Your task to perform on an android device: What's on my calendar today? Image 0: 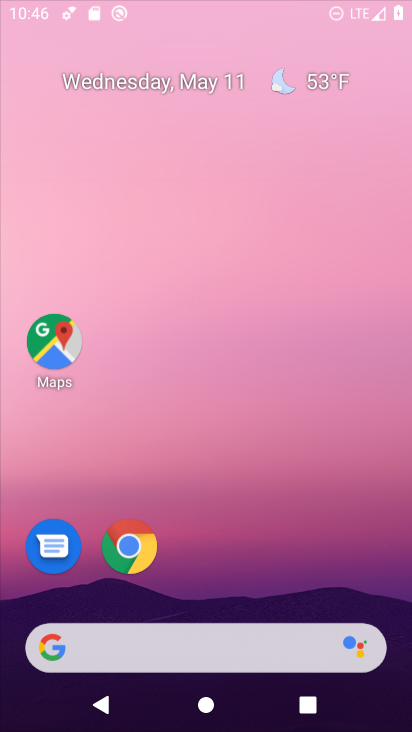
Step 0: click (265, 1)
Your task to perform on an android device: What's on my calendar today? Image 1: 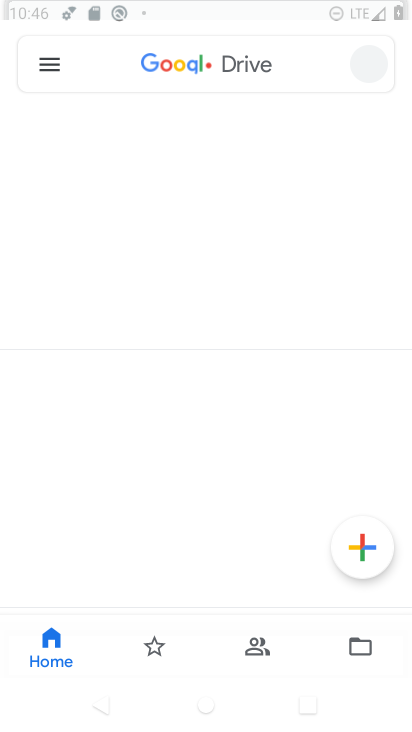
Step 1: press home button
Your task to perform on an android device: What's on my calendar today? Image 2: 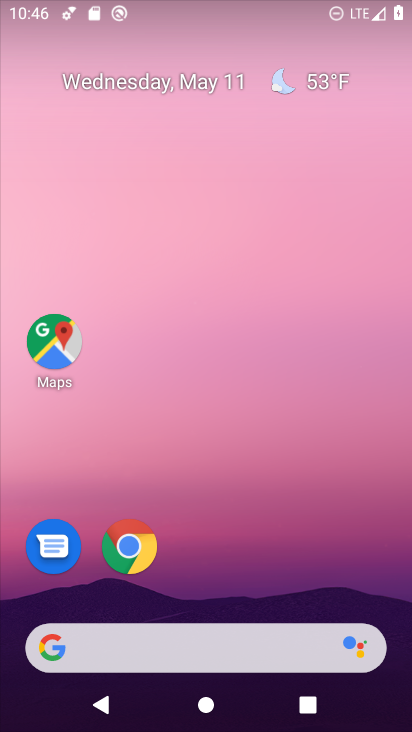
Step 2: drag from (397, 627) to (283, 36)
Your task to perform on an android device: What's on my calendar today? Image 3: 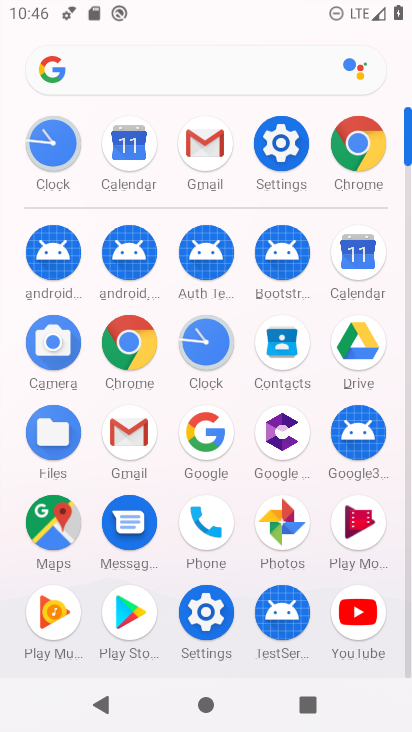
Step 3: click (368, 265)
Your task to perform on an android device: What's on my calendar today? Image 4: 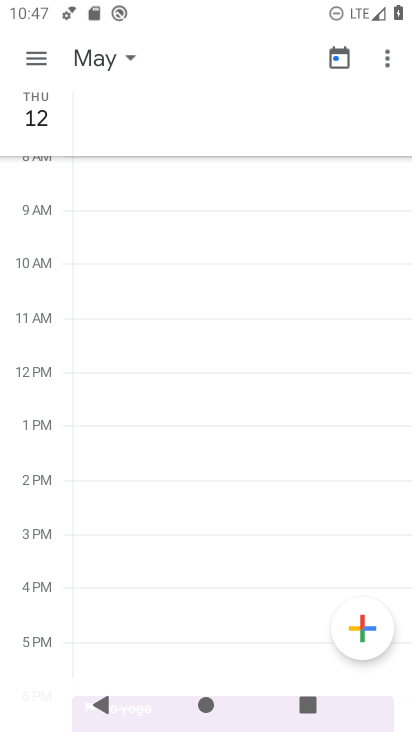
Step 4: click (74, 54)
Your task to perform on an android device: What's on my calendar today? Image 5: 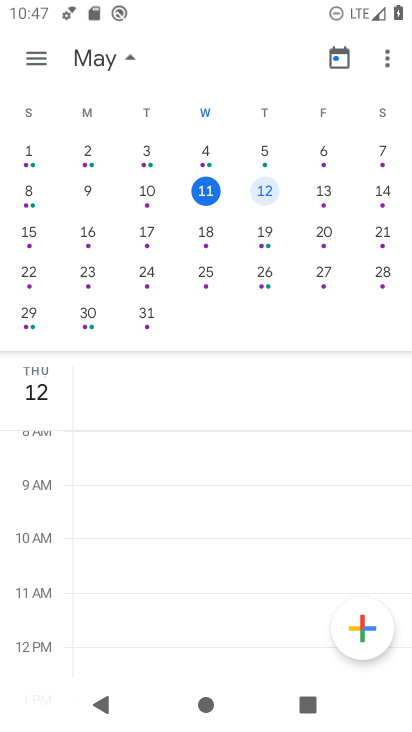
Step 5: click (46, 63)
Your task to perform on an android device: What's on my calendar today? Image 6: 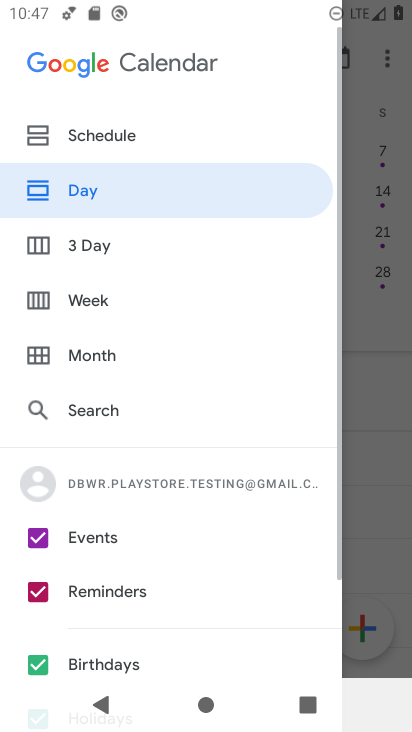
Step 6: click (109, 130)
Your task to perform on an android device: What's on my calendar today? Image 7: 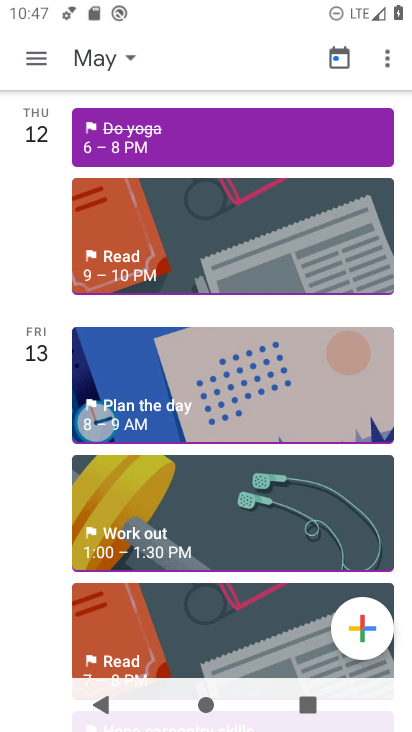
Step 7: task complete